Your task to perform on an android device: create a new album in the google photos Image 0: 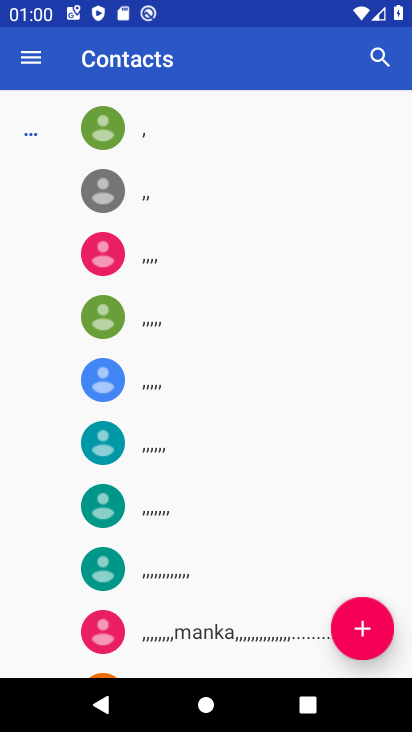
Step 0: press home button
Your task to perform on an android device: create a new album in the google photos Image 1: 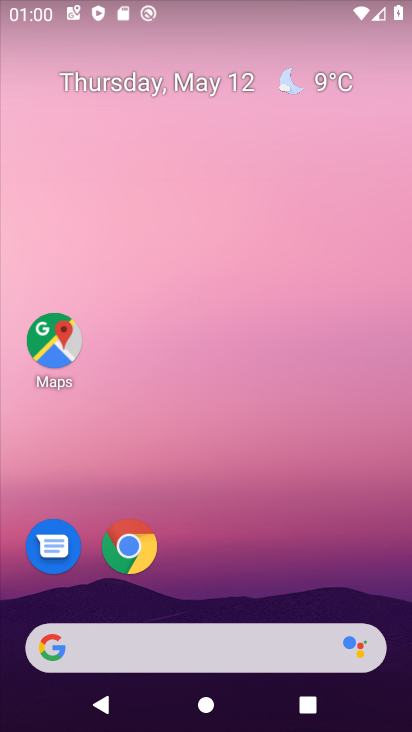
Step 1: drag from (211, 588) to (225, 255)
Your task to perform on an android device: create a new album in the google photos Image 2: 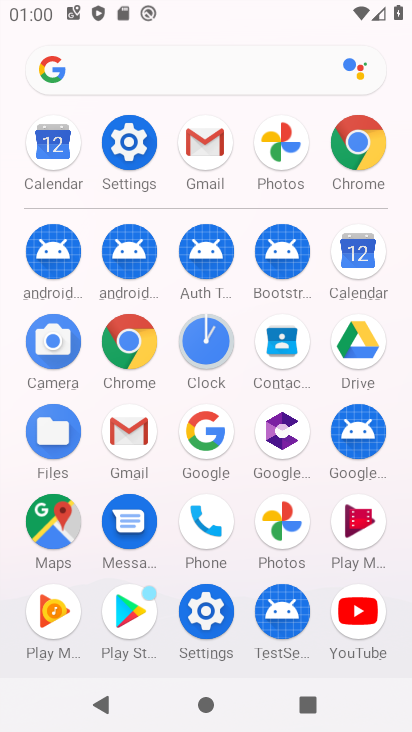
Step 2: click (286, 151)
Your task to perform on an android device: create a new album in the google photos Image 3: 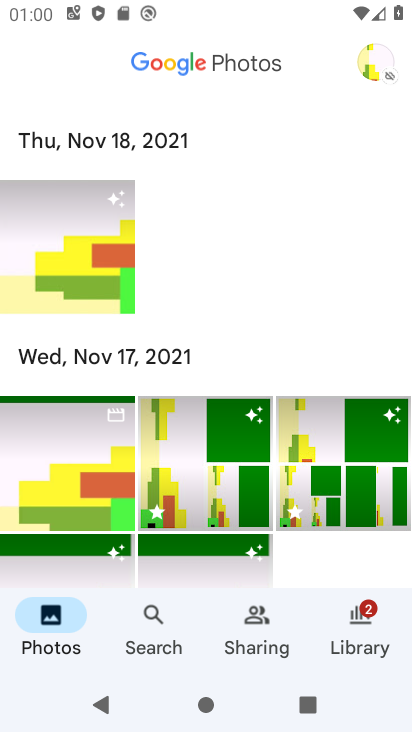
Step 3: click (382, 64)
Your task to perform on an android device: create a new album in the google photos Image 4: 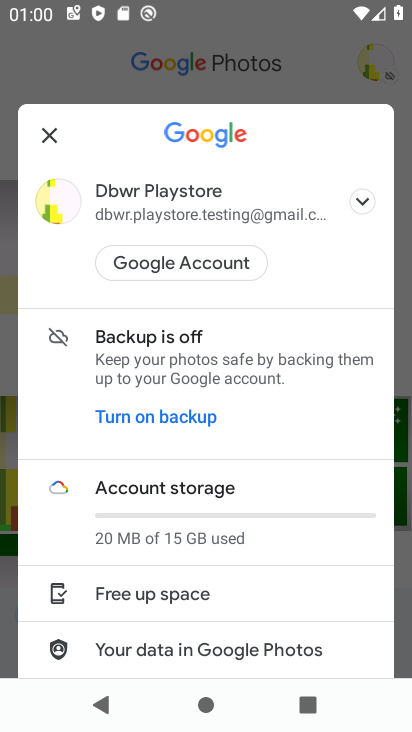
Step 4: click (201, 90)
Your task to perform on an android device: create a new album in the google photos Image 5: 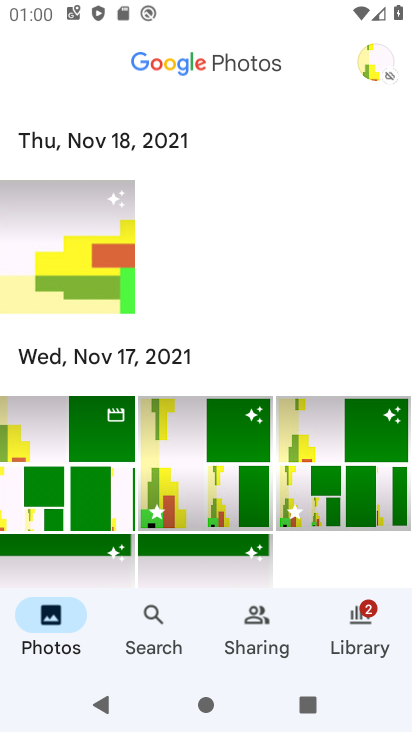
Step 5: click (347, 641)
Your task to perform on an android device: create a new album in the google photos Image 6: 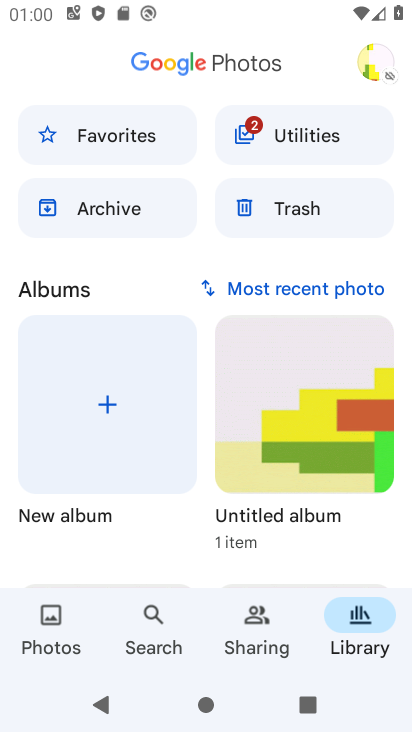
Step 6: click (83, 405)
Your task to perform on an android device: create a new album in the google photos Image 7: 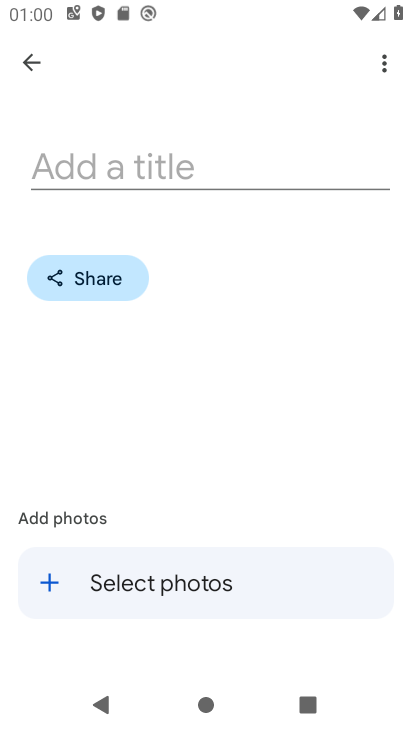
Step 7: click (105, 170)
Your task to perform on an android device: create a new album in the google photos Image 8: 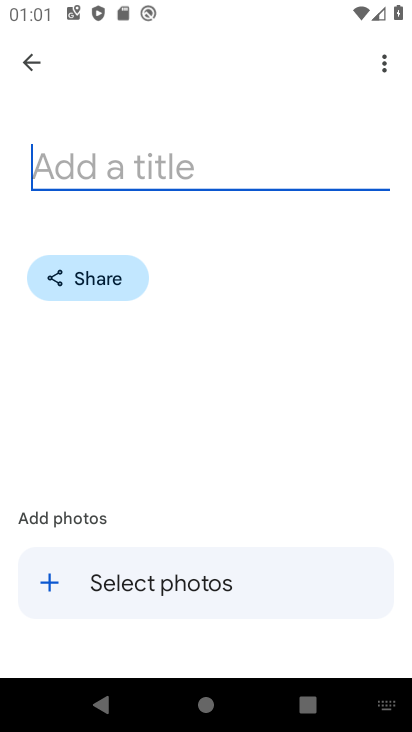
Step 8: type "dxdx"
Your task to perform on an android device: create a new album in the google photos Image 9: 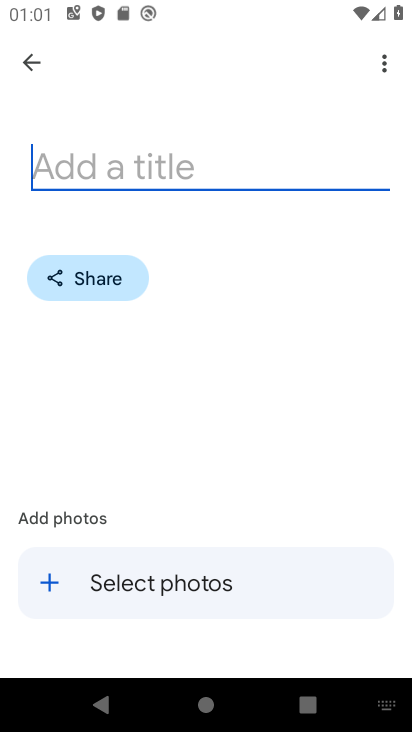
Step 9: click (148, 574)
Your task to perform on an android device: create a new album in the google photos Image 10: 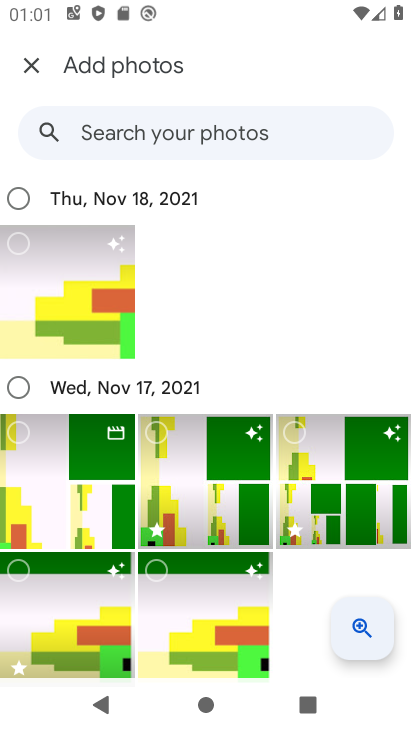
Step 10: click (19, 238)
Your task to perform on an android device: create a new album in the google photos Image 11: 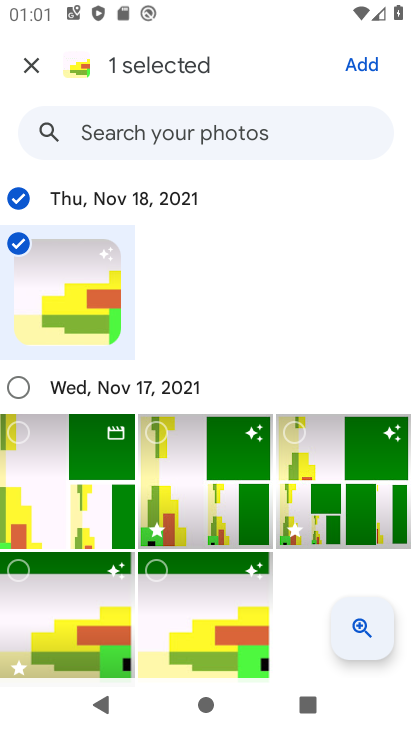
Step 11: click (353, 69)
Your task to perform on an android device: create a new album in the google photos Image 12: 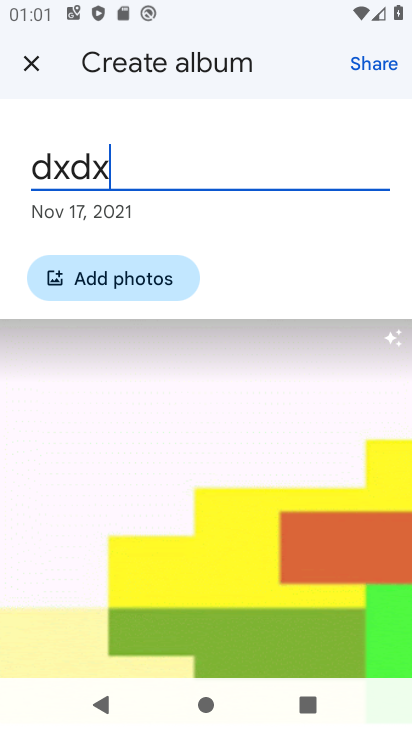
Step 12: task complete